Your task to perform on an android device: toggle javascript in the chrome app Image 0: 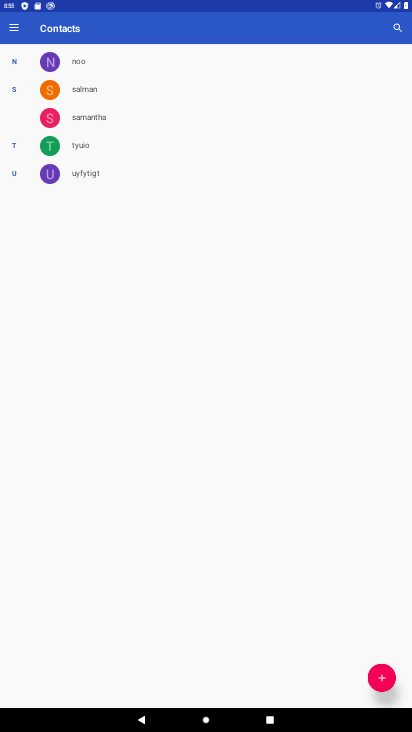
Step 0: press home button
Your task to perform on an android device: toggle javascript in the chrome app Image 1: 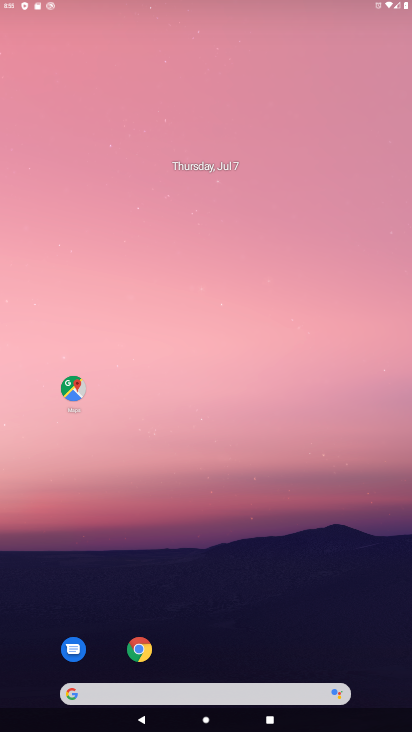
Step 1: drag from (204, 660) to (180, 2)
Your task to perform on an android device: toggle javascript in the chrome app Image 2: 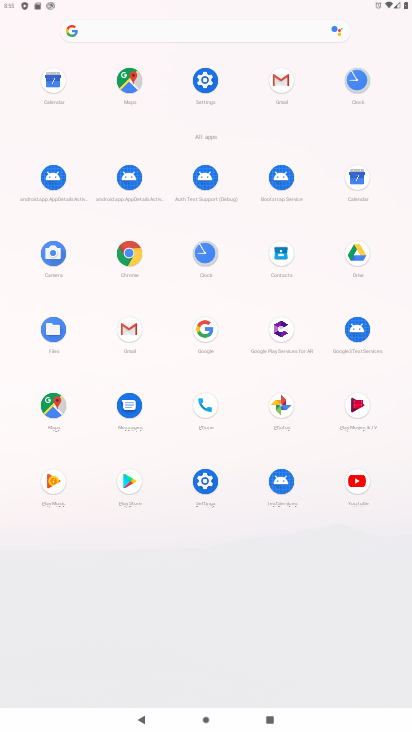
Step 2: click (120, 245)
Your task to perform on an android device: toggle javascript in the chrome app Image 3: 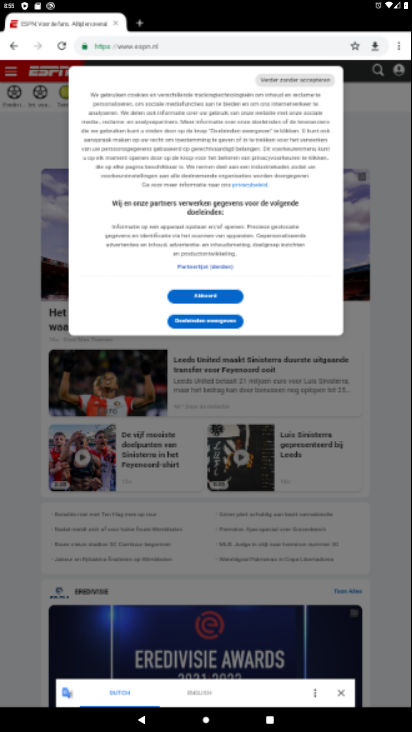
Step 3: click (396, 44)
Your task to perform on an android device: toggle javascript in the chrome app Image 4: 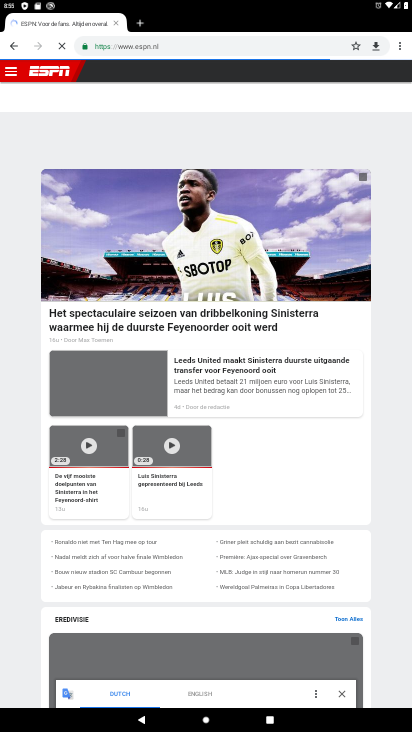
Step 4: drag from (395, 43) to (314, 283)
Your task to perform on an android device: toggle javascript in the chrome app Image 5: 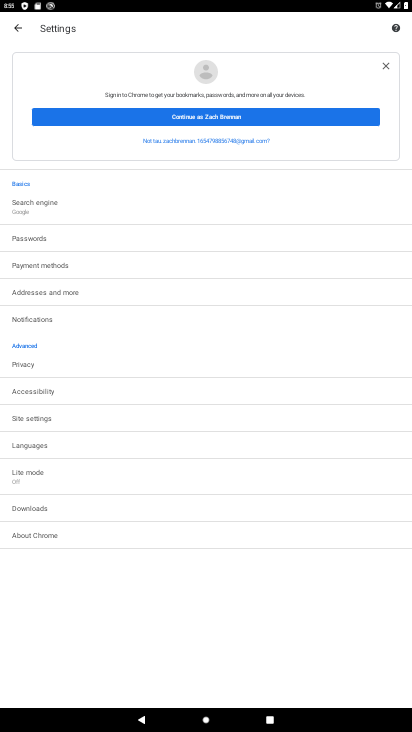
Step 5: click (41, 420)
Your task to perform on an android device: toggle javascript in the chrome app Image 6: 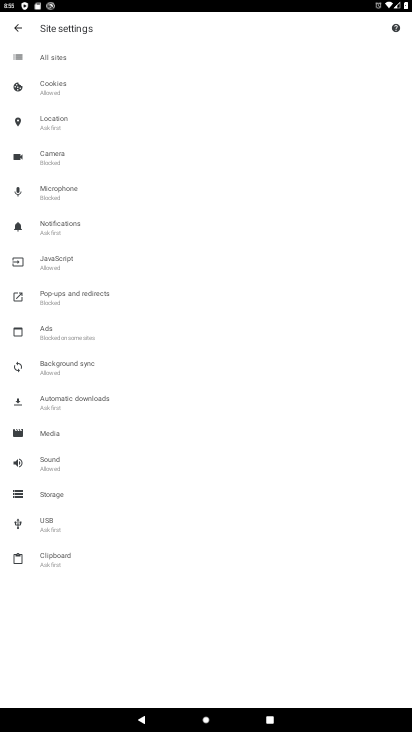
Step 6: click (65, 272)
Your task to perform on an android device: toggle javascript in the chrome app Image 7: 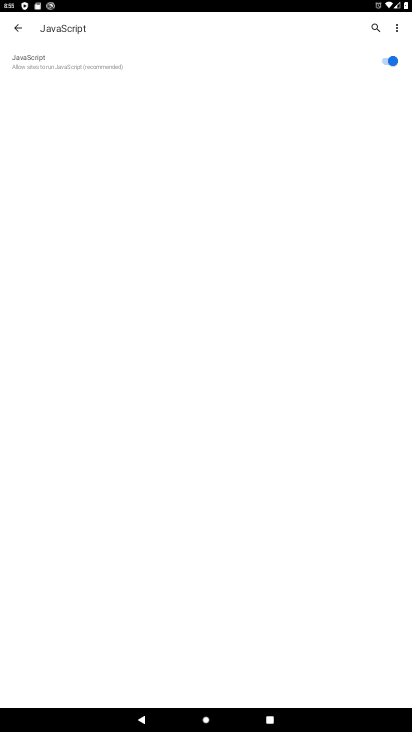
Step 7: click (391, 60)
Your task to perform on an android device: toggle javascript in the chrome app Image 8: 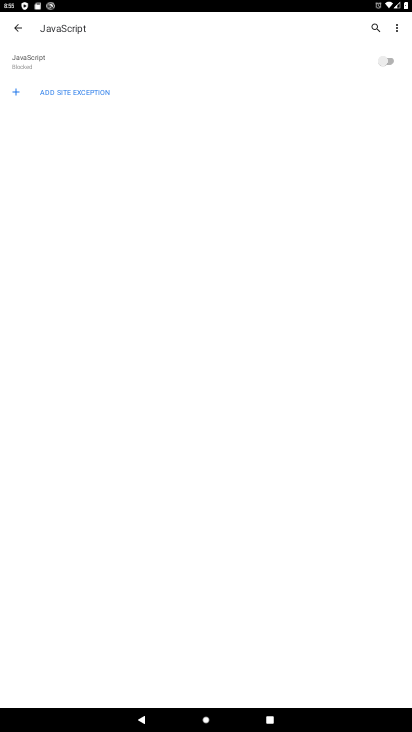
Step 8: task complete